Your task to perform on an android device: turn off airplane mode Image 0: 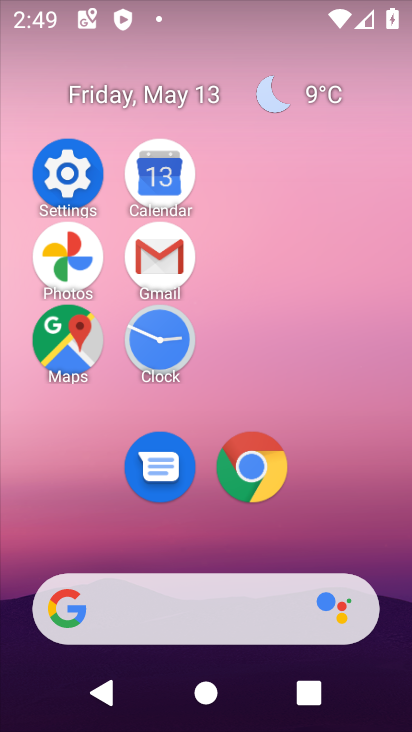
Step 0: click (56, 181)
Your task to perform on an android device: turn off airplane mode Image 1: 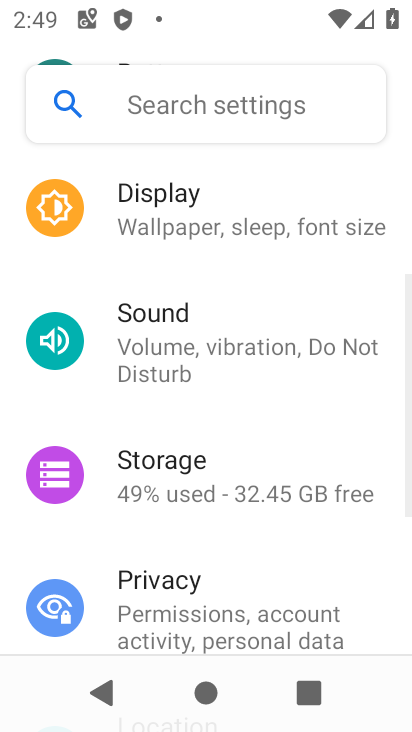
Step 1: drag from (231, 224) to (269, 546)
Your task to perform on an android device: turn off airplane mode Image 2: 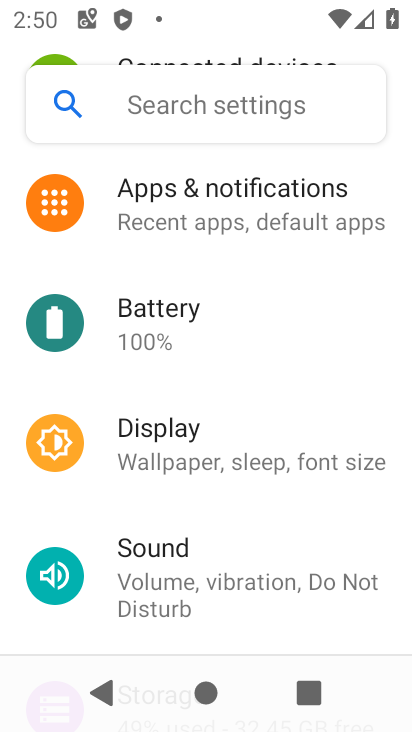
Step 2: drag from (289, 256) to (253, 567)
Your task to perform on an android device: turn off airplane mode Image 3: 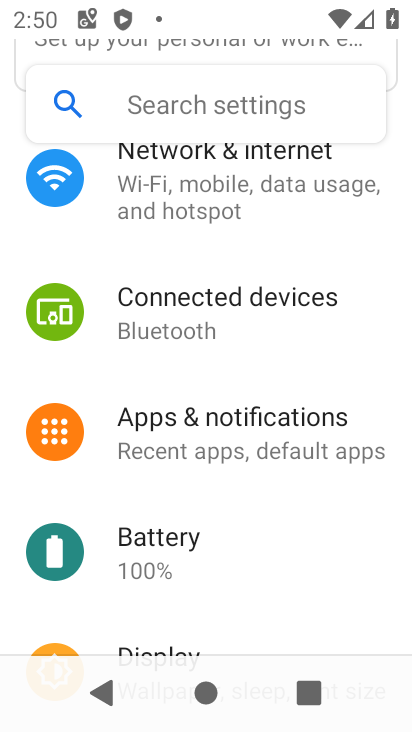
Step 3: click (235, 196)
Your task to perform on an android device: turn off airplane mode Image 4: 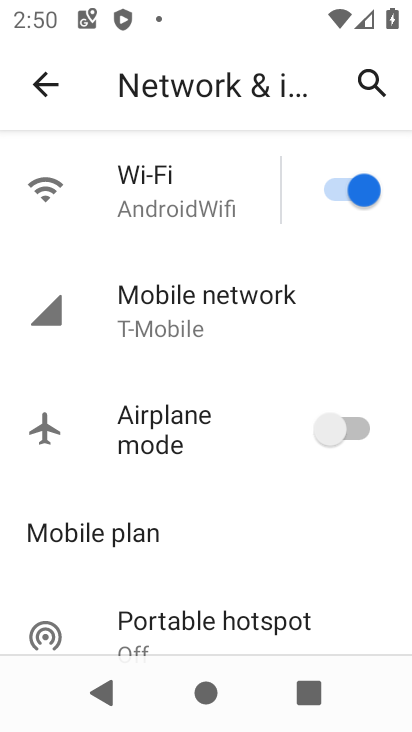
Step 4: task complete